Your task to perform on an android device: set an alarm Image 0: 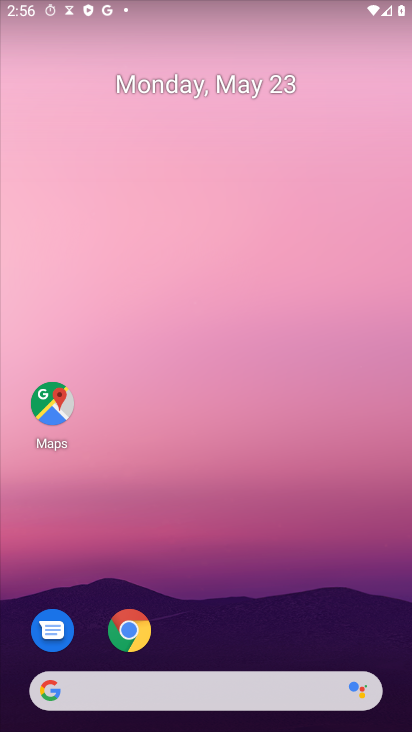
Step 0: drag from (332, 567) to (394, 0)
Your task to perform on an android device: set an alarm Image 1: 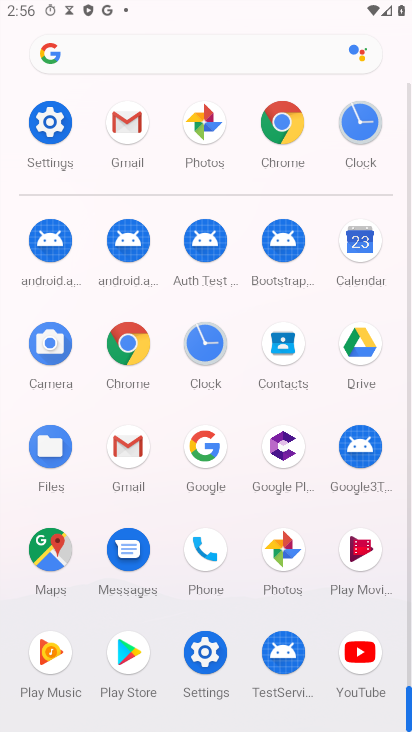
Step 1: click (358, 137)
Your task to perform on an android device: set an alarm Image 2: 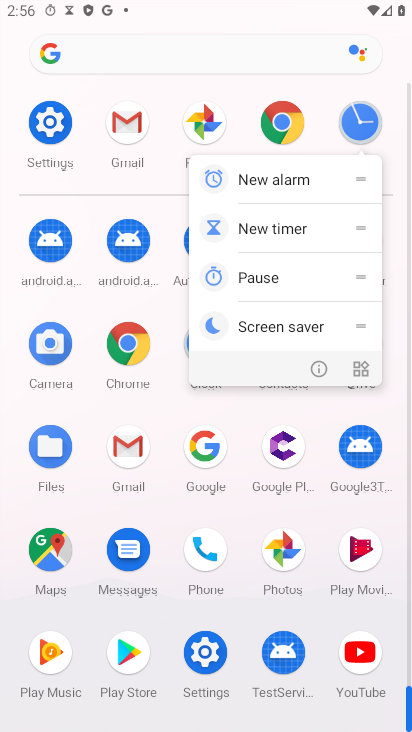
Step 2: click (358, 137)
Your task to perform on an android device: set an alarm Image 3: 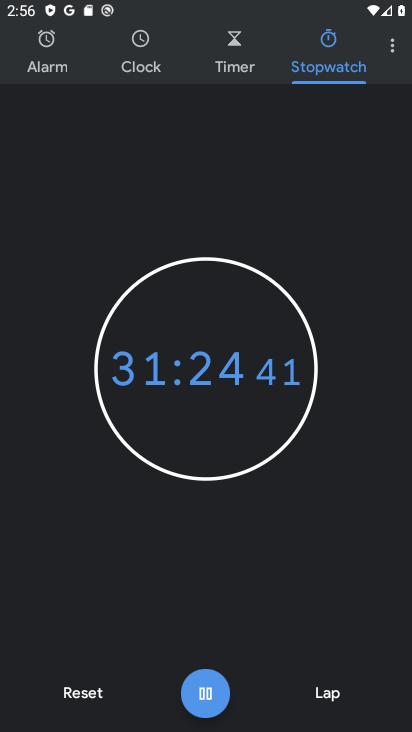
Step 3: click (51, 70)
Your task to perform on an android device: set an alarm Image 4: 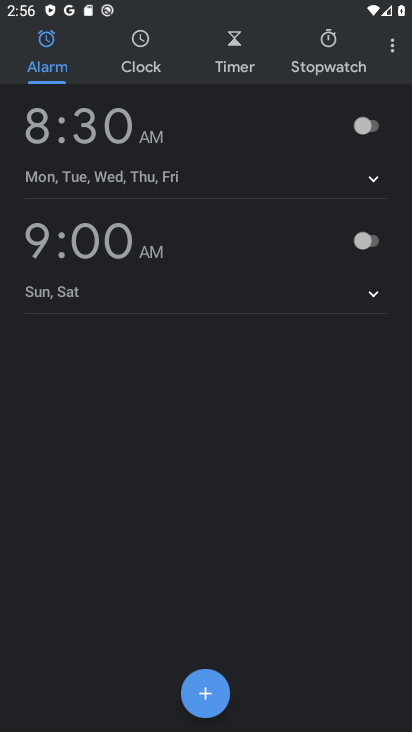
Step 4: click (365, 135)
Your task to perform on an android device: set an alarm Image 5: 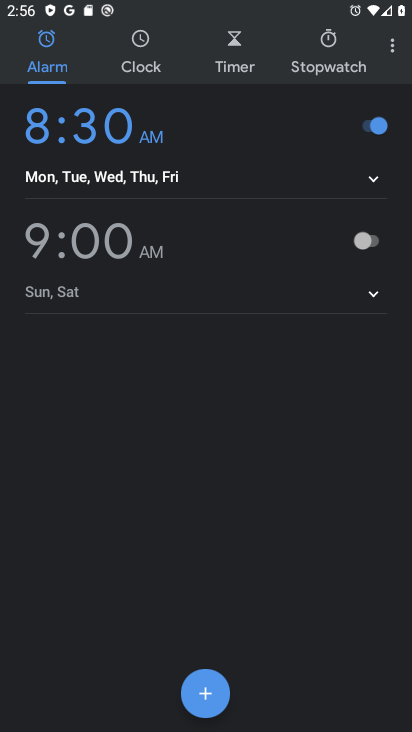
Step 5: task complete